Your task to perform on an android device: Open the phone app and click the voicemail tab. Image 0: 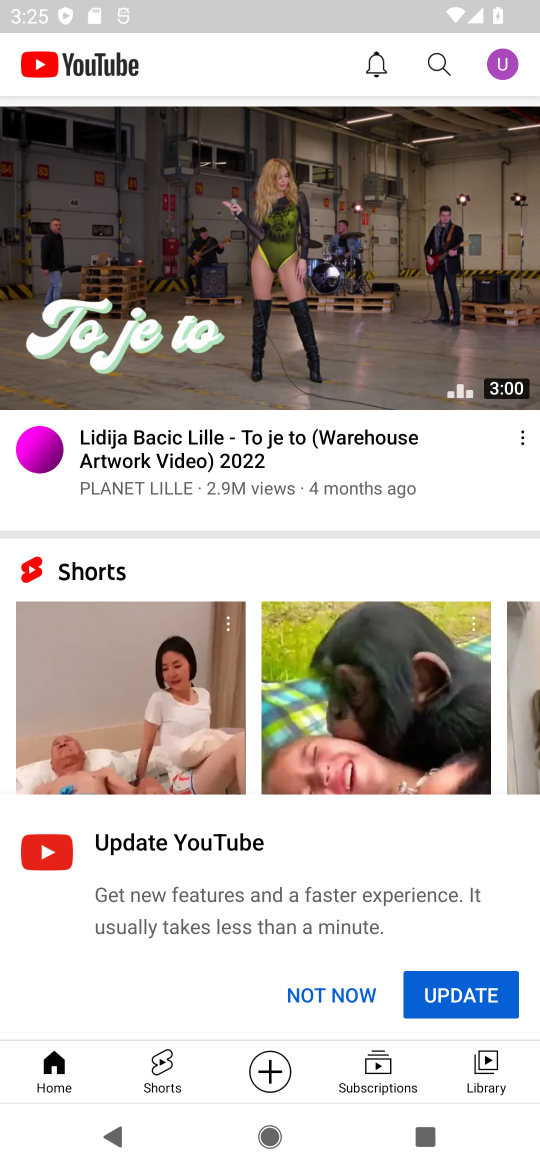
Step 0: press home button
Your task to perform on an android device: Open the phone app and click the voicemail tab. Image 1: 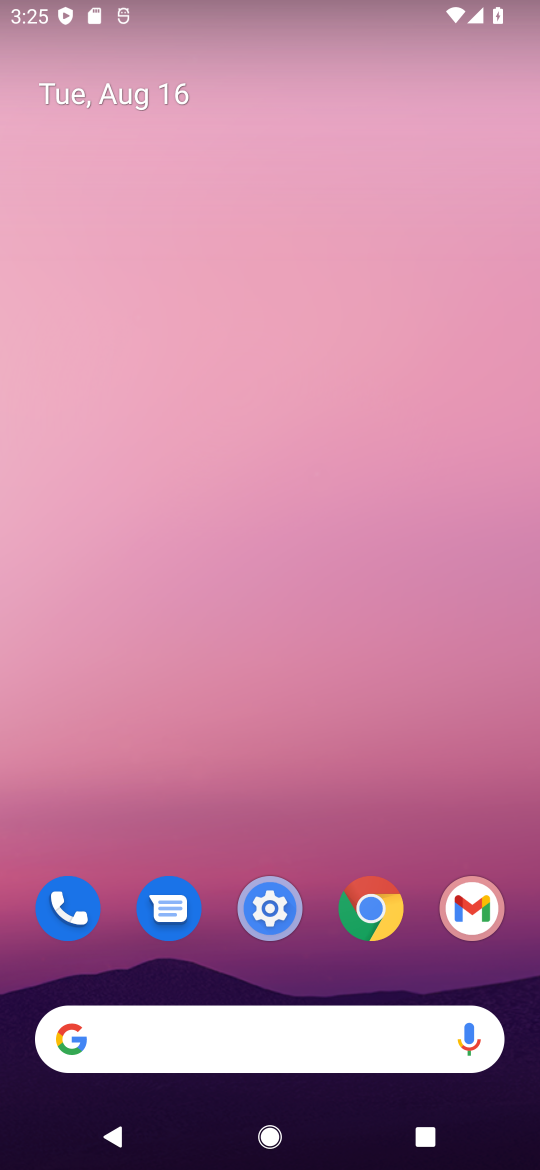
Step 1: drag from (327, 974) to (316, 320)
Your task to perform on an android device: Open the phone app and click the voicemail tab. Image 2: 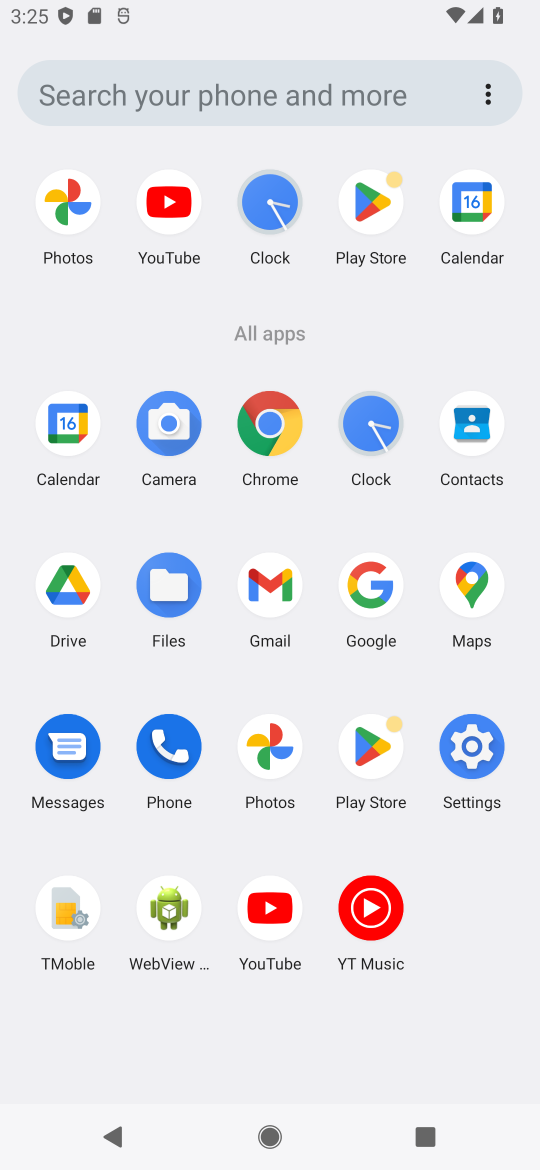
Step 2: click (165, 737)
Your task to perform on an android device: Open the phone app and click the voicemail tab. Image 3: 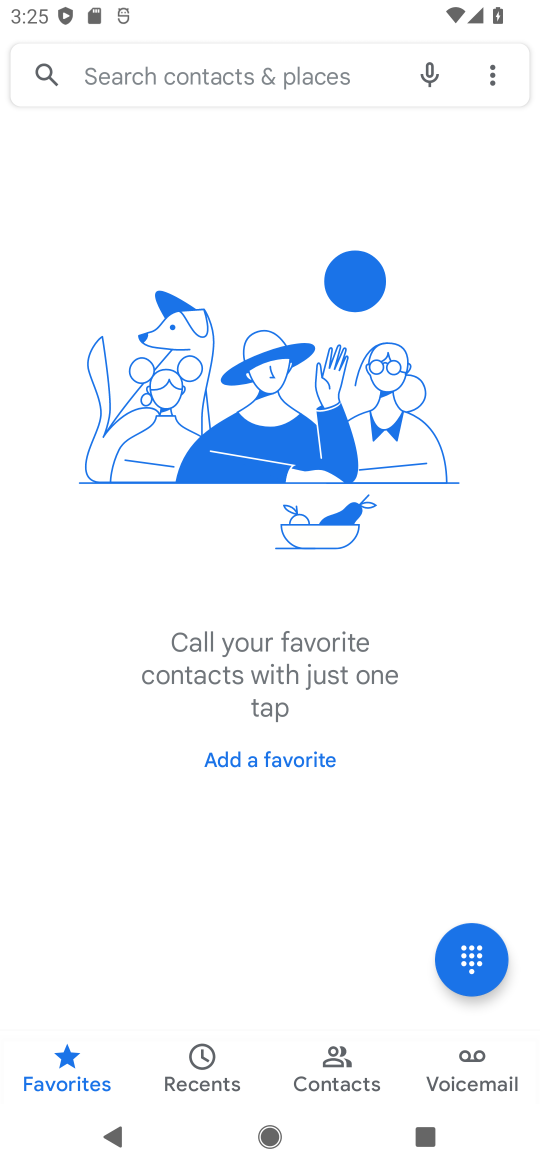
Step 3: click (476, 1052)
Your task to perform on an android device: Open the phone app and click the voicemail tab. Image 4: 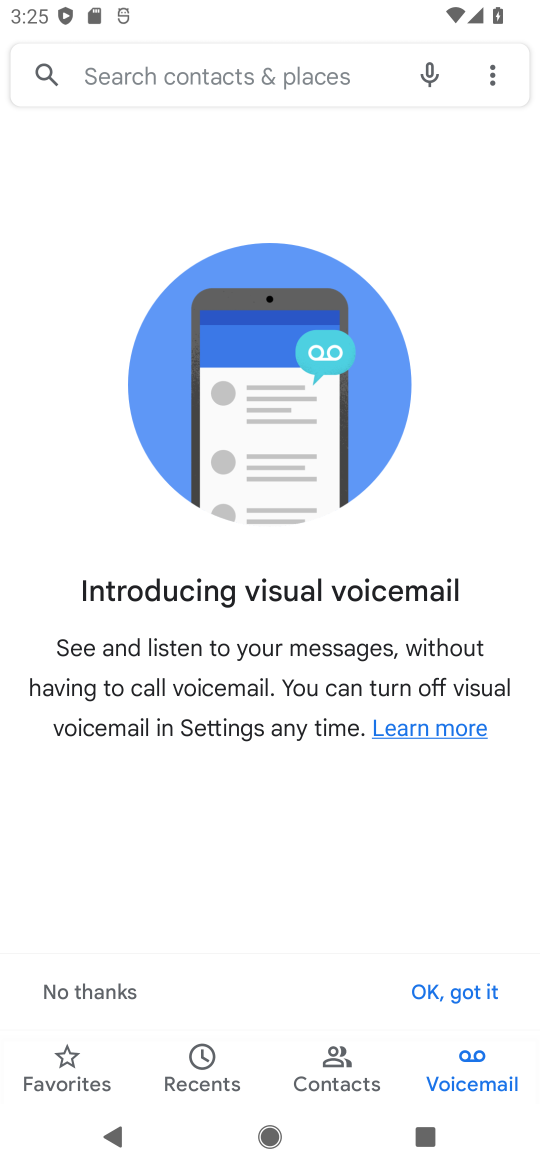
Step 4: click (463, 994)
Your task to perform on an android device: Open the phone app and click the voicemail tab. Image 5: 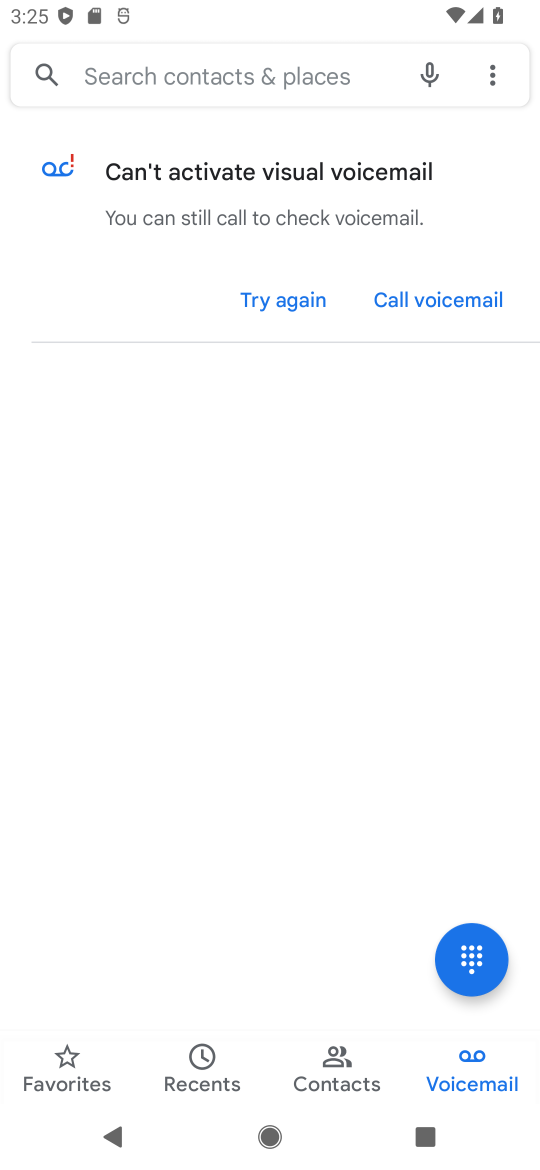
Step 5: task complete